Your task to perform on an android device: change the clock display to analog Image 0: 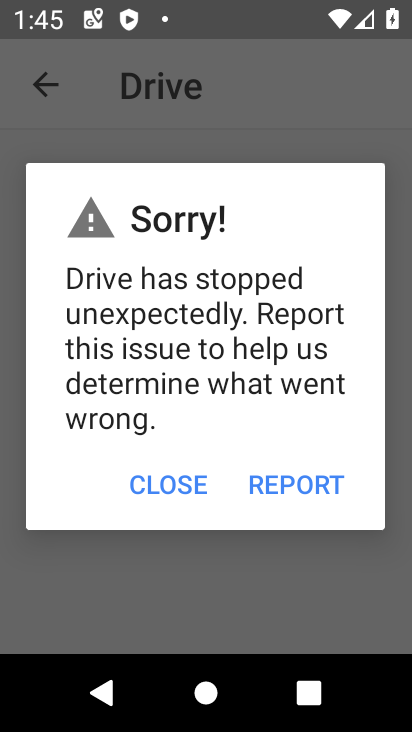
Step 0: press home button
Your task to perform on an android device: change the clock display to analog Image 1: 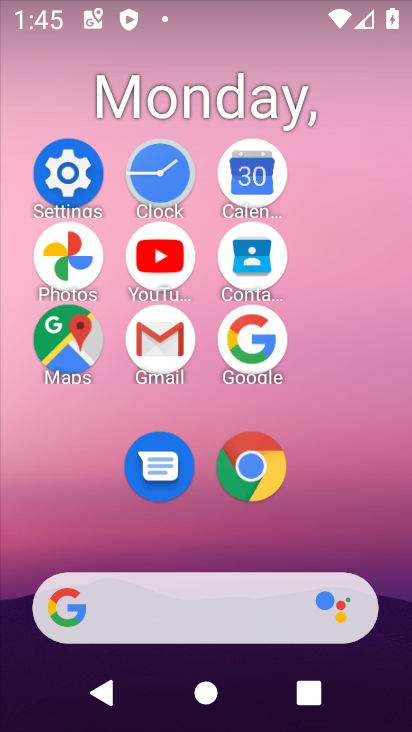
Step 1: click (173, 180)
Your task to perform on an android device: change the clock display to analog Image 2: 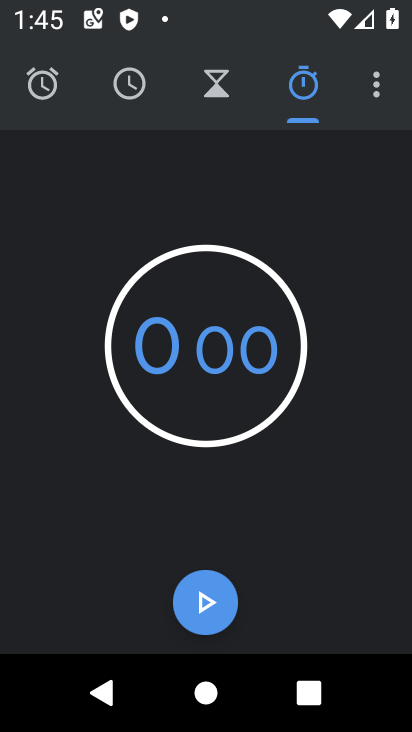
Step 2: click (371, 79)
Your task to perform on an android device: change the clock display to analog Image 3: 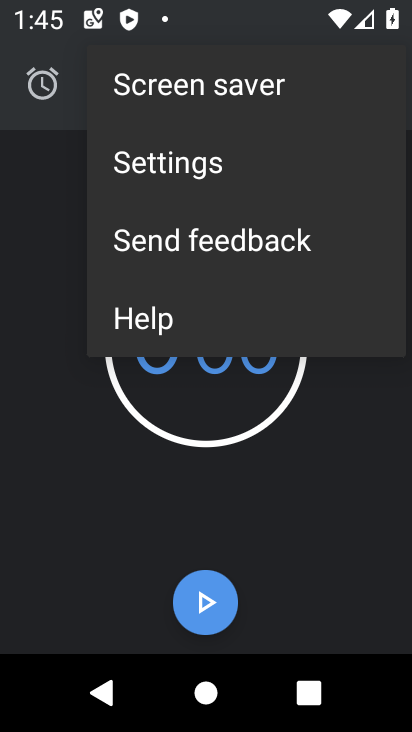
Step 3: click (299, 179)
Your task to perform on an android device: change the clock display to analog Image 4: 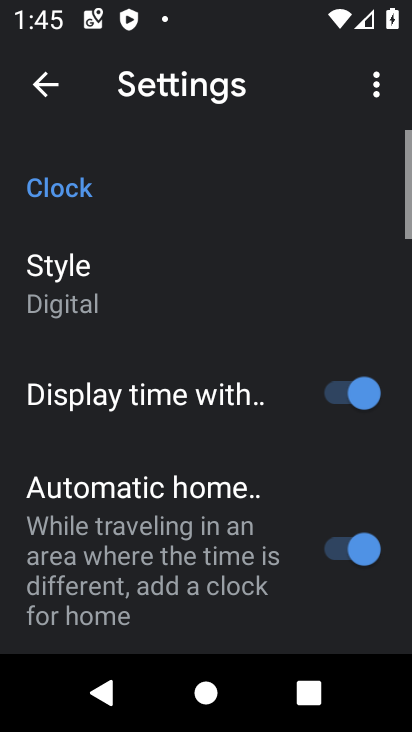
Step 4: click (129, 267)
Your task to perform on an android device: change the clock display to analog Image 5: 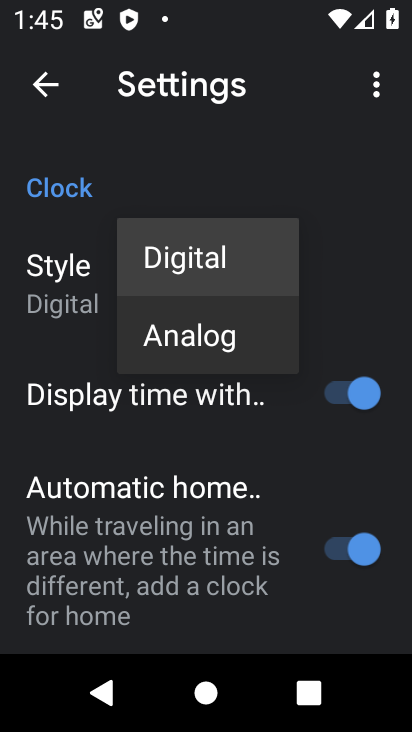
Step 5: click (179, 330)
Your task to perform on an android device: change the clock display to analog Image 6: 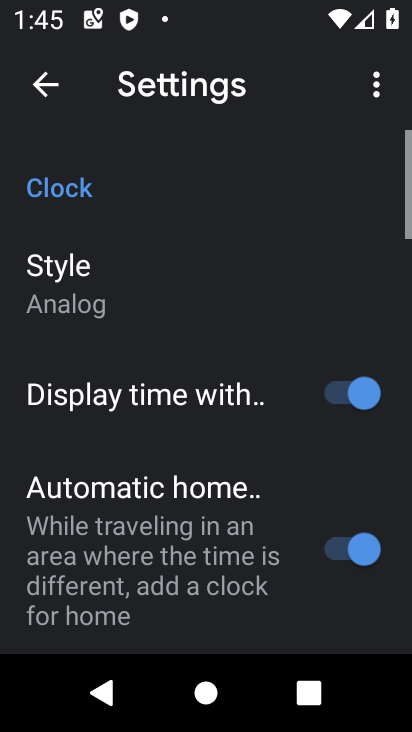
Step 6: task complete